Your task to perform on an android device: turn on data saver in the chrome app Image 0: 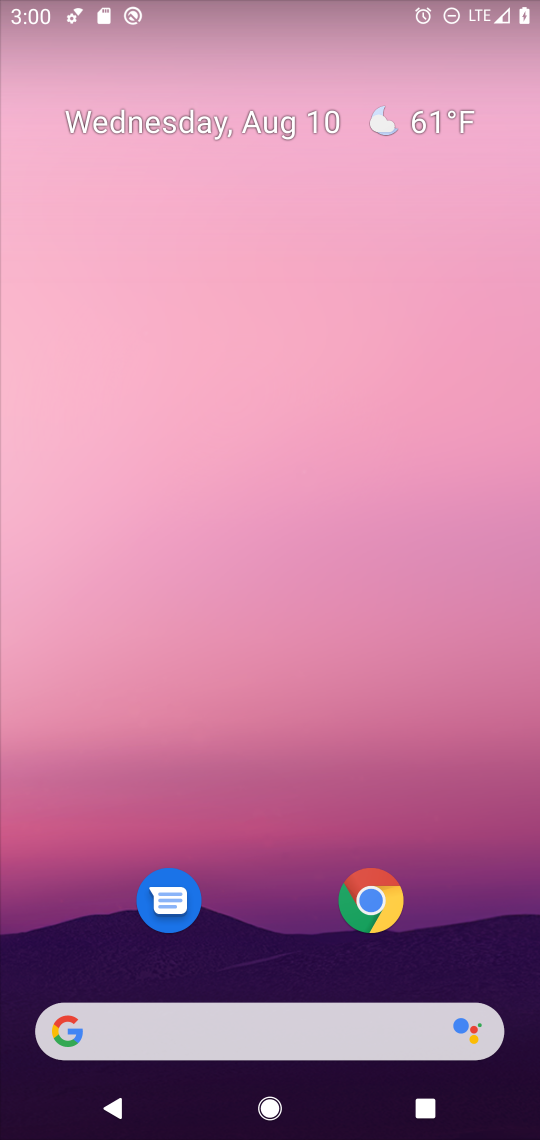
Step 0: click (377, 905)
Your task to perform on an android device: turn on data saver in the chrome app Image 1: 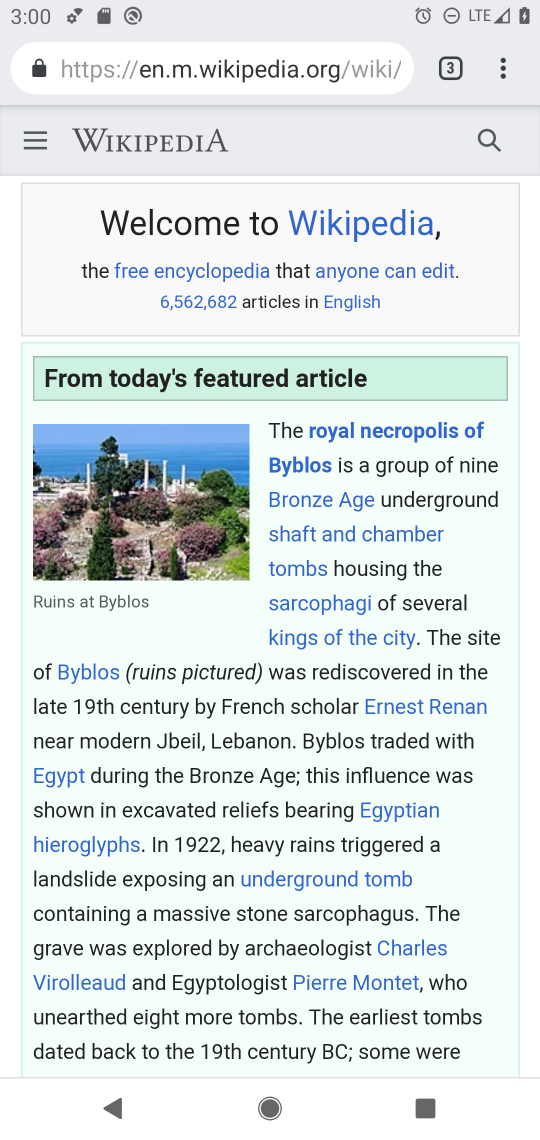
Step 1: click (503, 57)
Your task to perform on an android device: turn on data saver in the chrome app Image 2: 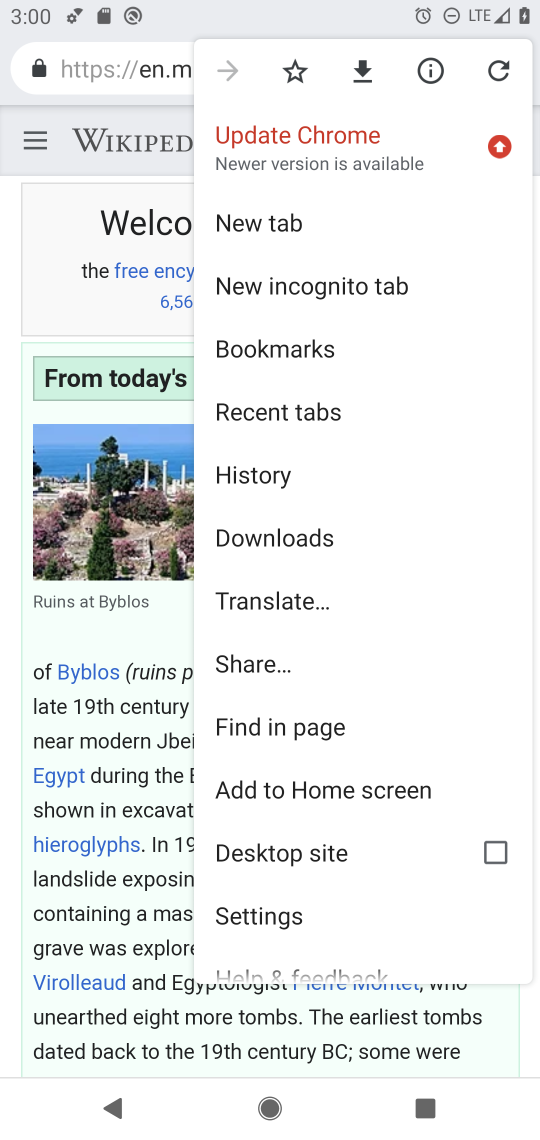
Step 2: click (292, 921)
Your task to perform on an android device: turn on data saver in the chrome app Image 3: 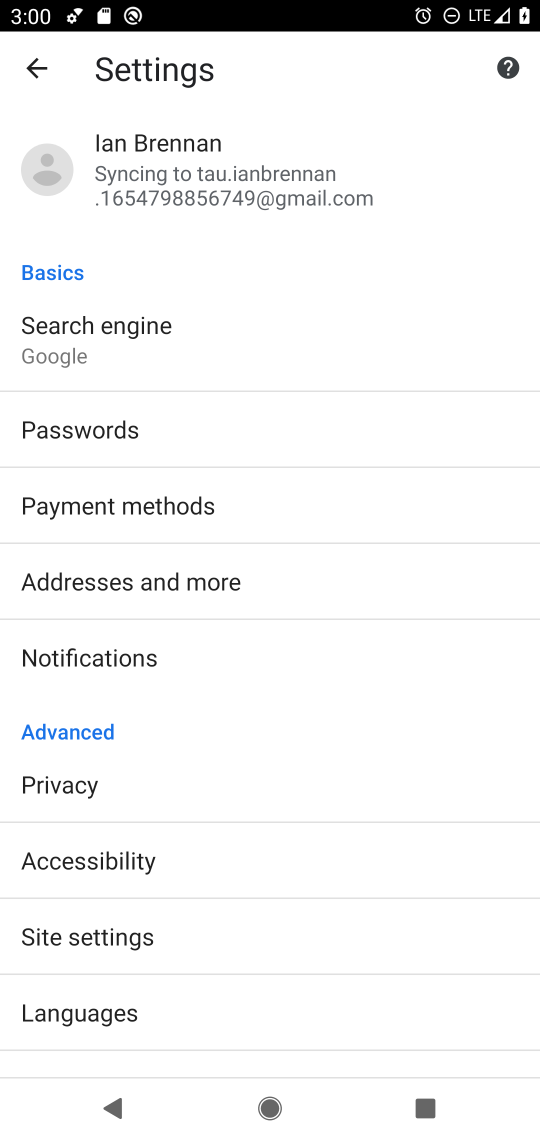
Step 3: drag from (288, 880) to (272, 212)
Your task to perform on an android device: turn on data saver in the chrome app Image 4: 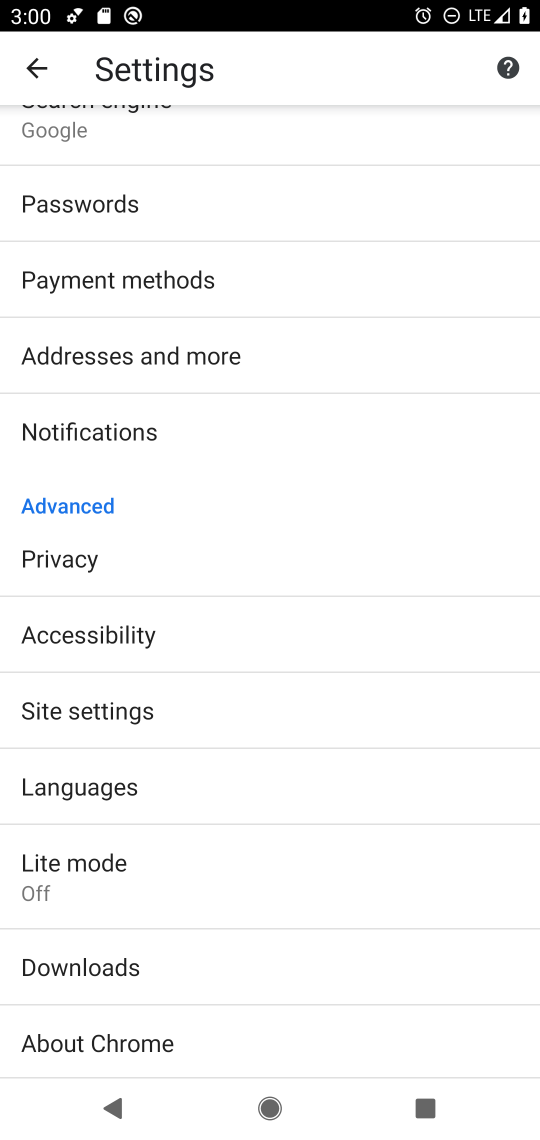
Step 4: click (157, 878)
Your task to perform on an android device: turn on data saver in the chrome app Image 5: 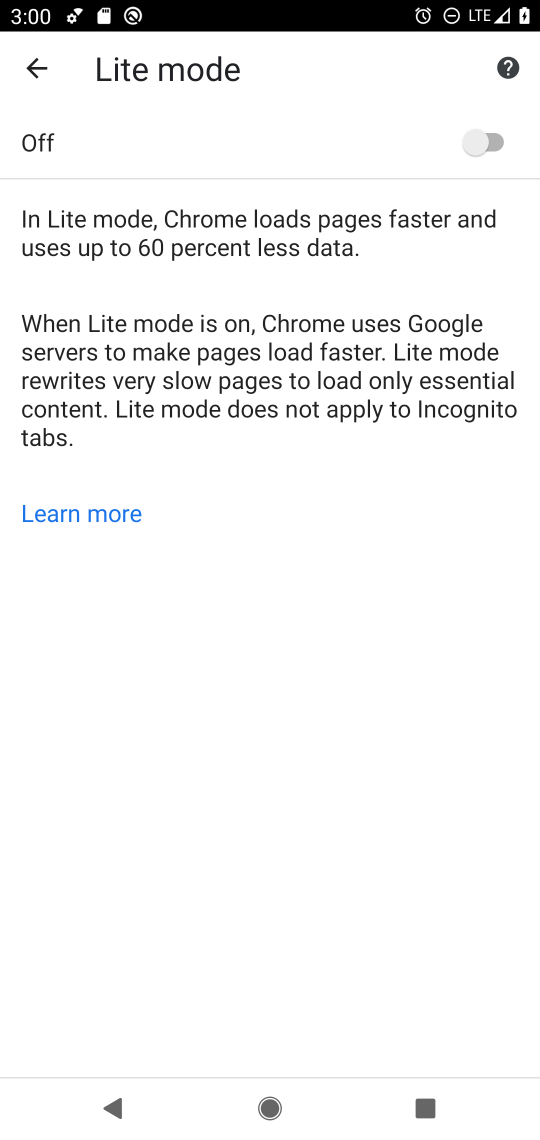
Step 5: click (473, 125)
Your task to perform on an android device: turn on data saver in the chrome app Image 6: 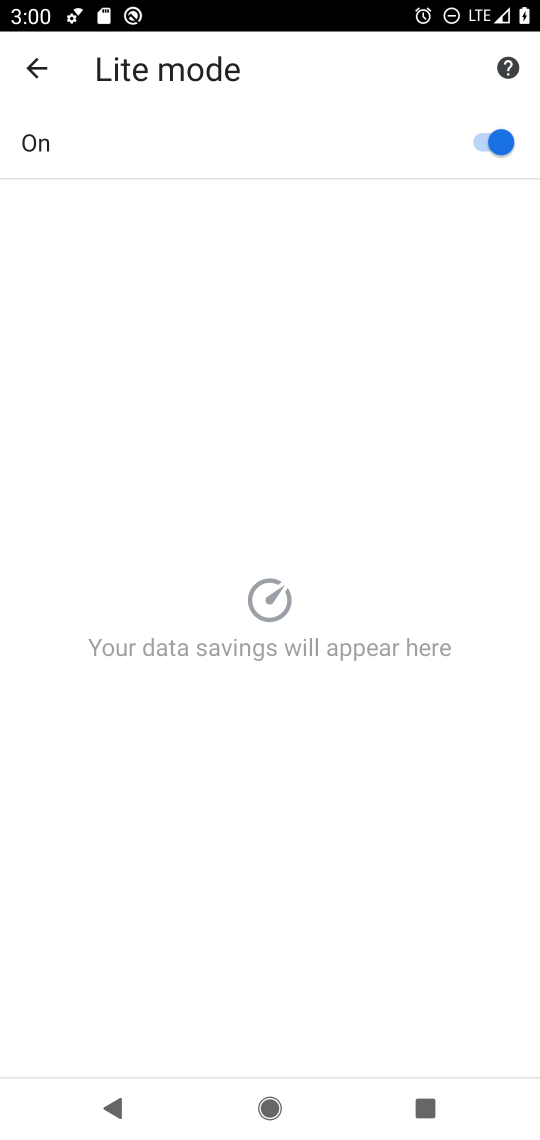
Step 6: task complete